Your task to perform on an android device: Open Android settings Image 0: 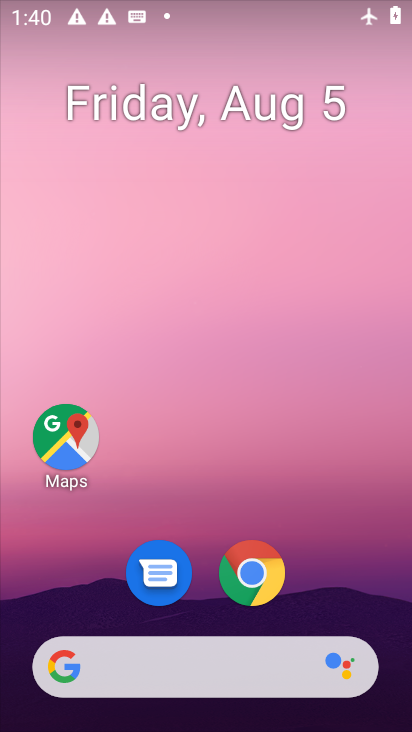
Step 0: press home button
Your task to perform on an android device: Open Android settings Image 1: 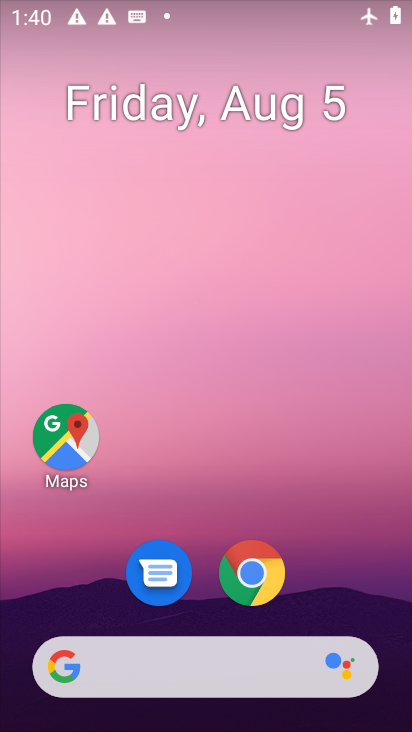
Step 1: drag from (383, 492) to (364, 171)
Your task to perform on an android device: Open Android settings Image 2: 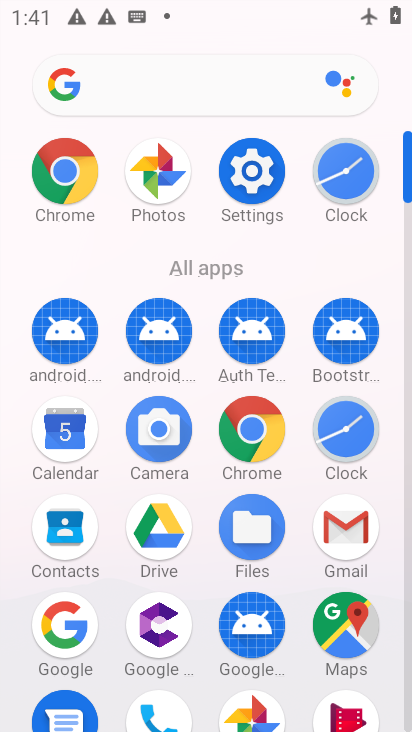
Step 2: click (262, 176)
Your task to perform on an android device: Open Android settings Image 3: 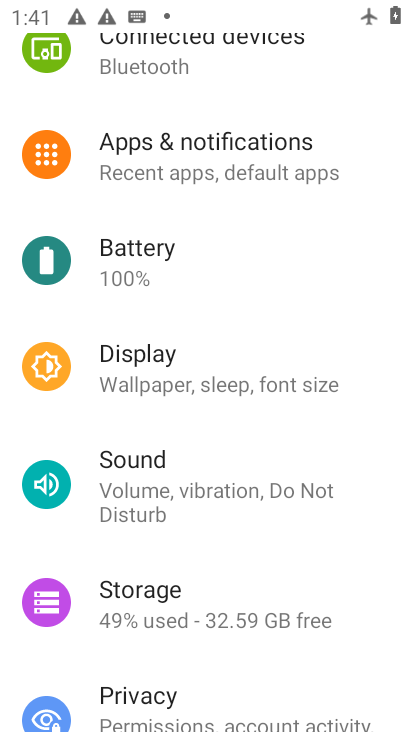
Step 3: drag from (384, 563) to (379, 435)
Your task to perform on an android device: Open Android settings Image 4: 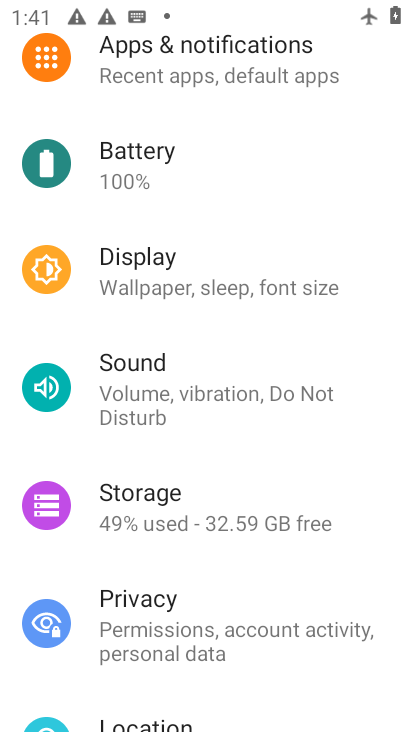
Step 4: drag from (366, 522) to (370, 384)
Your task to perform on an android device: Open Android settings Image 5: 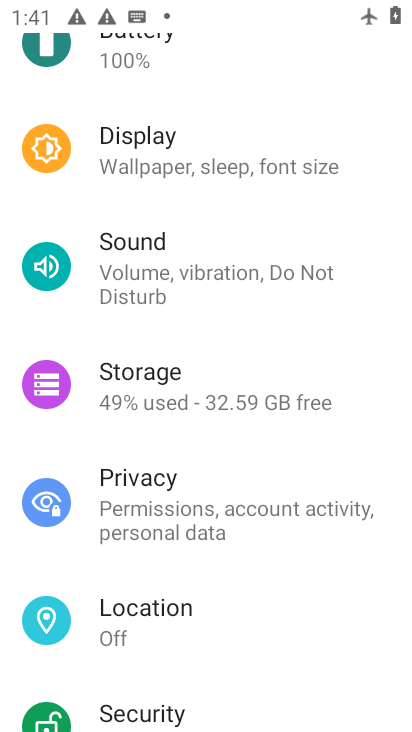
Step 5: drag from (360, 529) to (364, 418)
Your task to perform on an android device: Open Android settings Image 6: 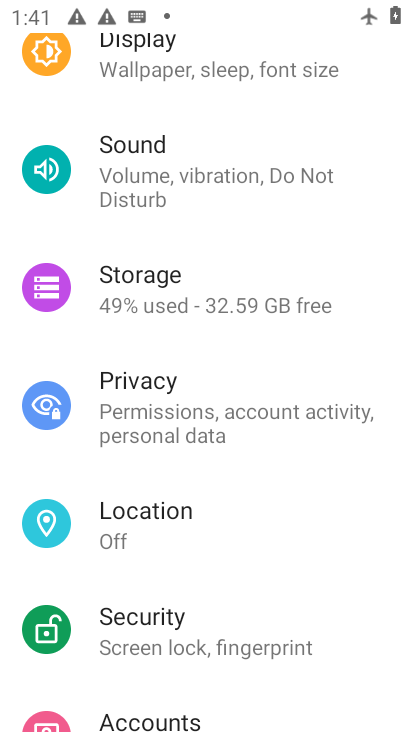
Step 6: drag from (335, 538) to (356, 422)
Your task to perform on an android device: Open Android settings Image 7: 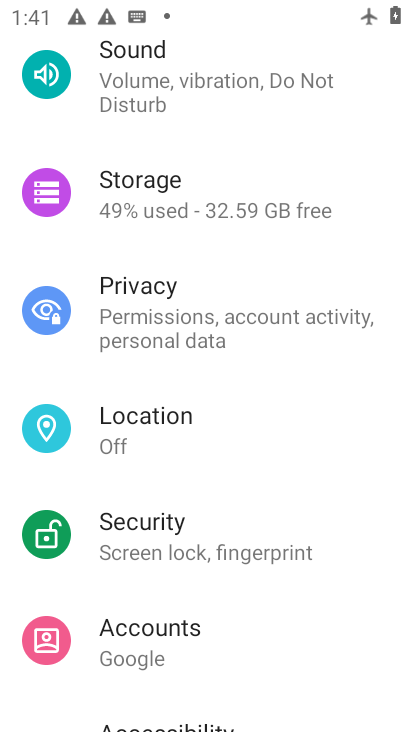
Step 7: drag from (325, 544) to (339, 444)
Your task to perform on an android device: Open Android settings Image 8: 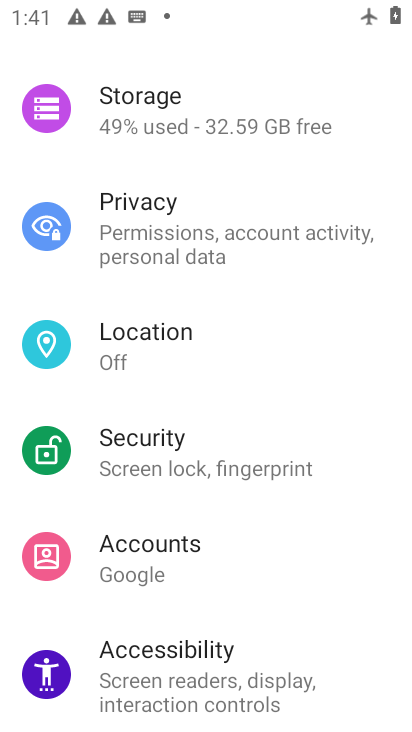
Step 8: drag from (329, 613) to (345, 473)
Your task to perform on an android device: Open Android settings Image 9: 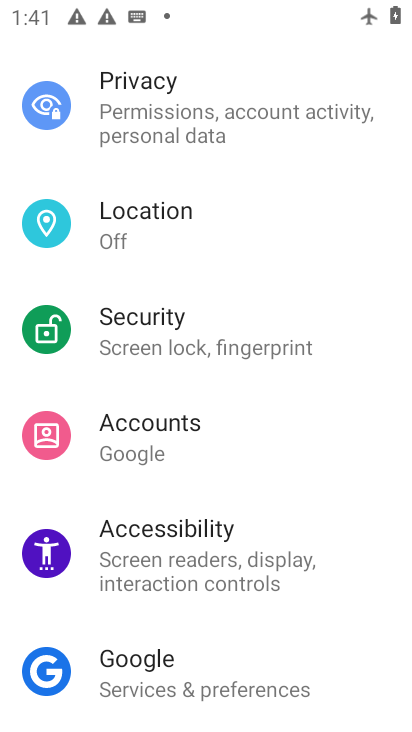
Step 9: drag from (336, 558) to (345, 419)
Your task to perform on an android device: Open Android settings Image 10: 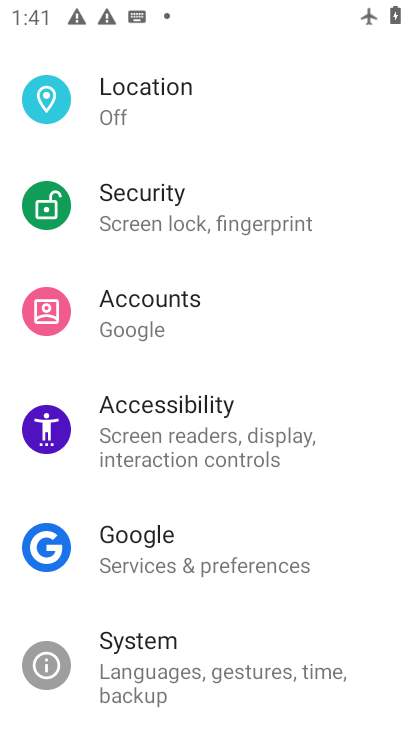
Step 10: drag from (358, 558) to (358, 436)
Your task to perform on an android device: Open Android settings Image 11: 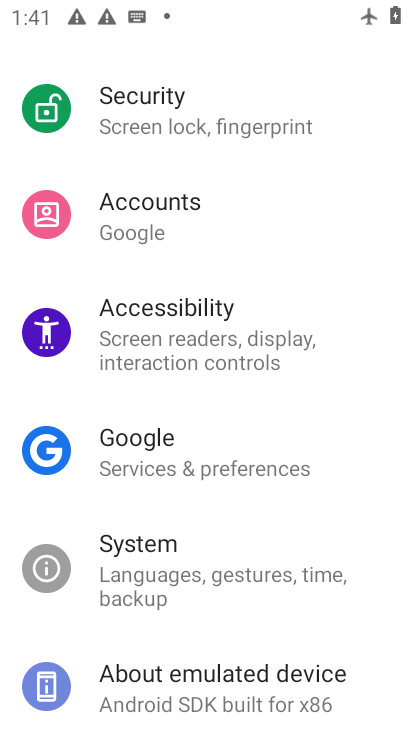
Step 11: drag from (371, 610) to (370, 480)
Your task to perform on an android device: Open Android settings Image 12: 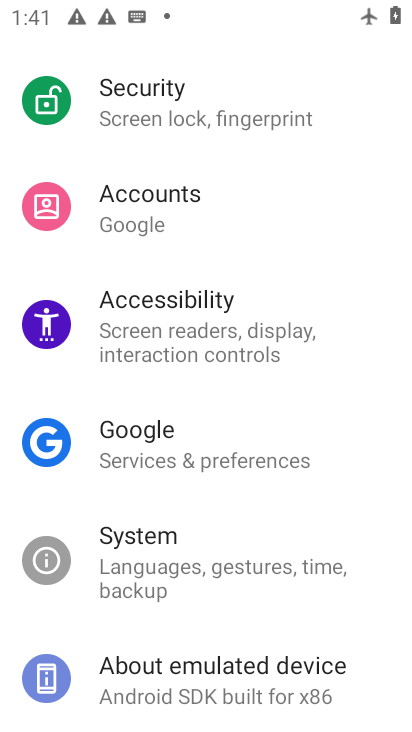
Step 12: click (328, 554)
Your task to perform on an android device: Open Android settings Image 13: 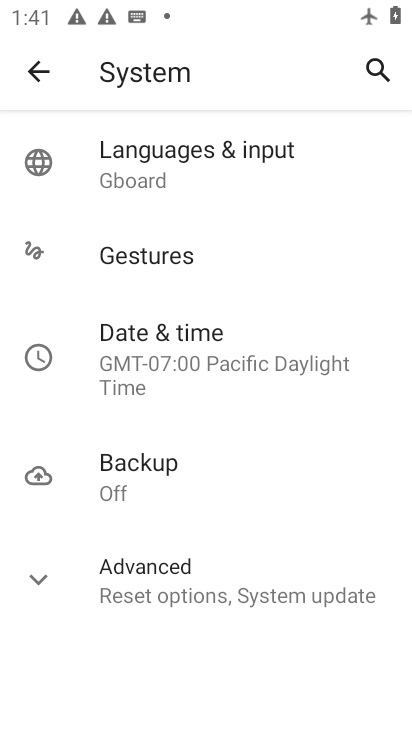
Step 13: click (224, 595)
Your task to perform on an android device: Open Android settings Image 14: 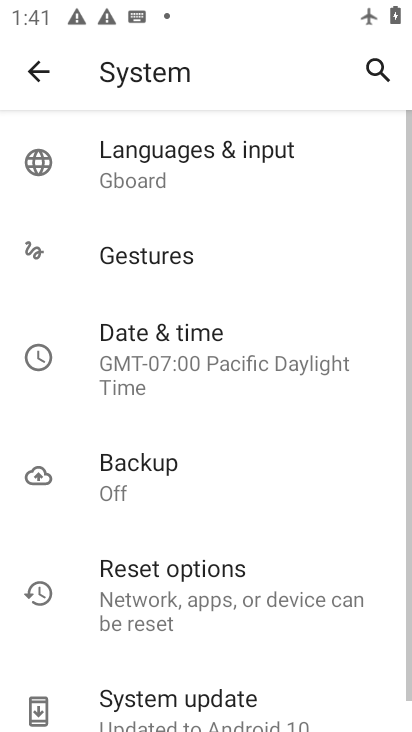
Step 14: task complete